Your task to perform on an android device: Search for vegetarian restaurants on Maps Image 0: 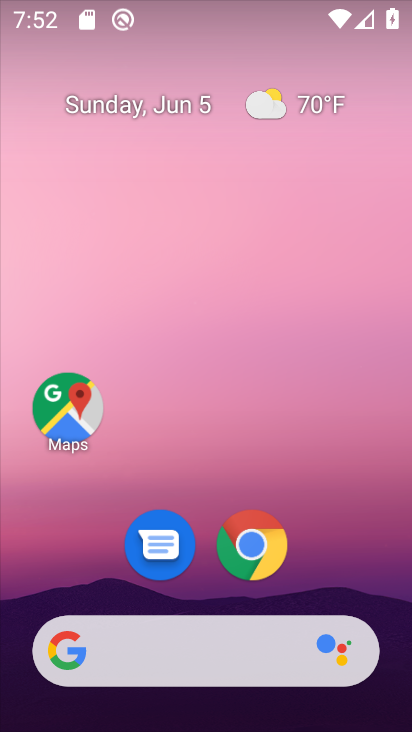
Step 0: drag from (330, 602) to (332, 165)
Your task to perform on an android device: Search for vegetarian restaurants on Maps Image 1: 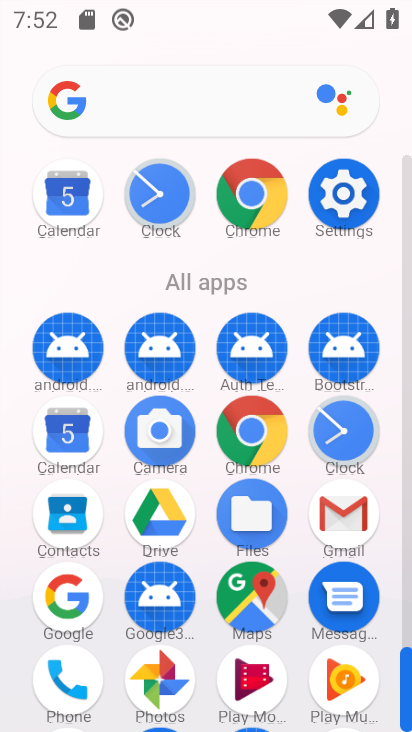
Step 1: click (247, 591)
Your task to perform on an android device: Search for vegetarian restaurants on Maps Image 2: 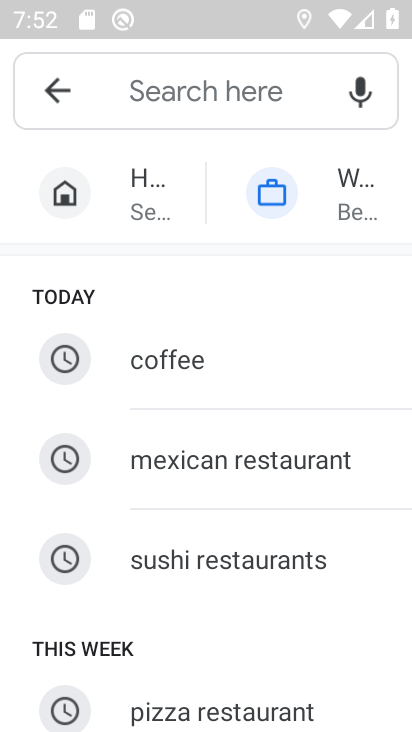
Step 2: click (220, 110)
Your task to perform on an android device: Search for vegetarian restaurants on Maps Image 3: 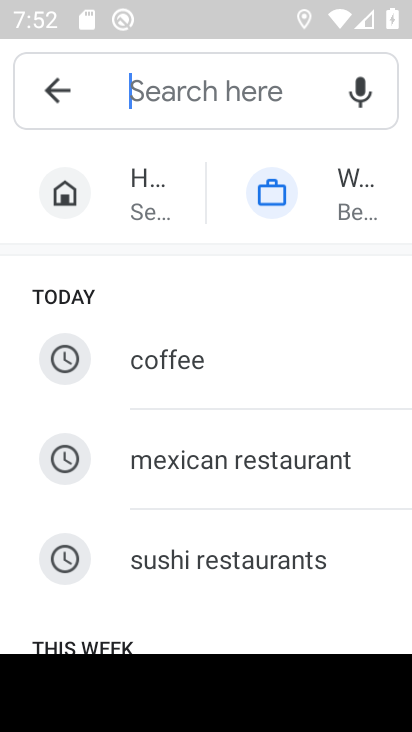
Step 3: type "vegetarian restaurants"
Your task to perform on an android device: Search for vegetarian restaurants on Maps Image 4: 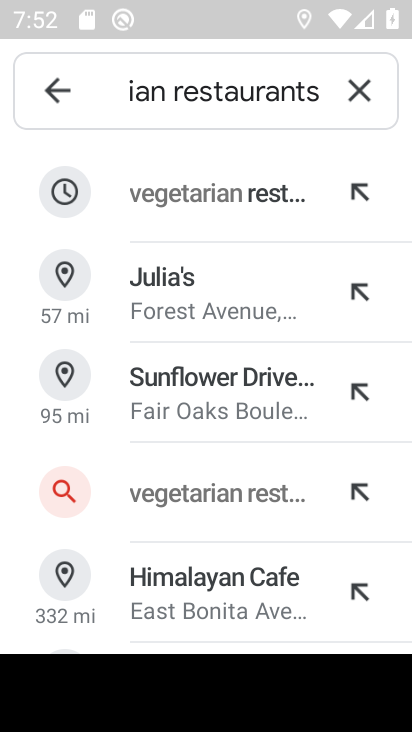
Step 4: click (257, 203)
Your task to perform on an android device: Search for vegetarian restaurants on Maps Image 5: 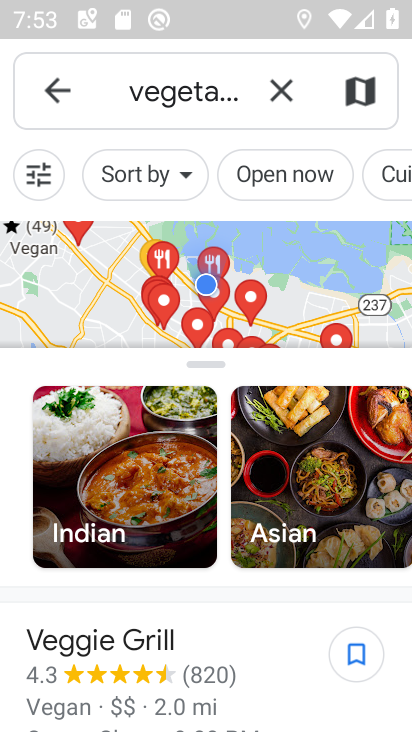
Step 5: task complete